Your task to perform on an android device: Open Yahoo.com Image 0: 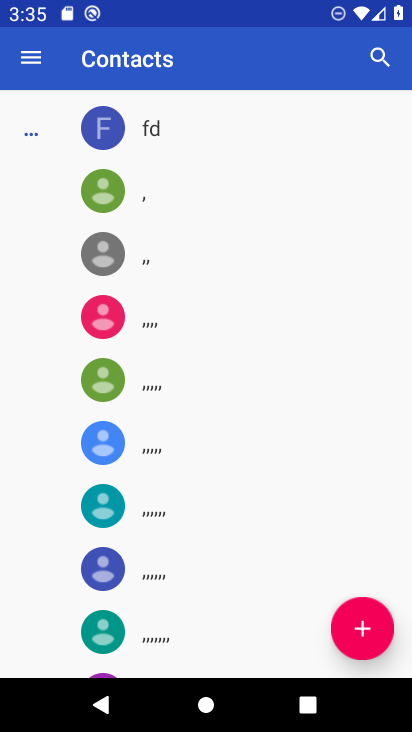
Step 0: press home button
Your task to perform on an android device: Open Yahoo.com Image 1: 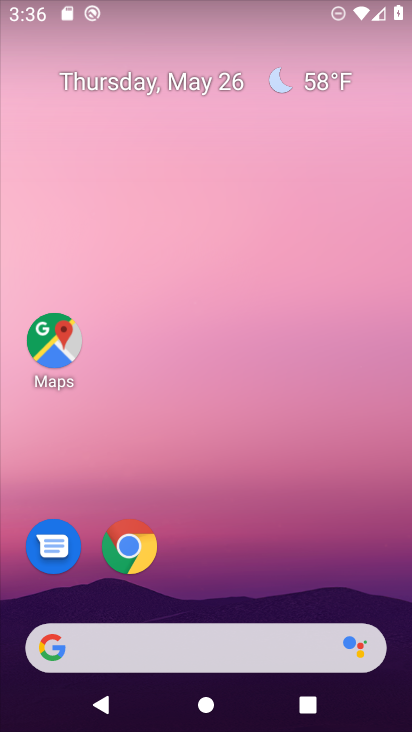
Step 1: click (127, 549)
Your task to perform on an android device: Open Yahoo.com Image 2: 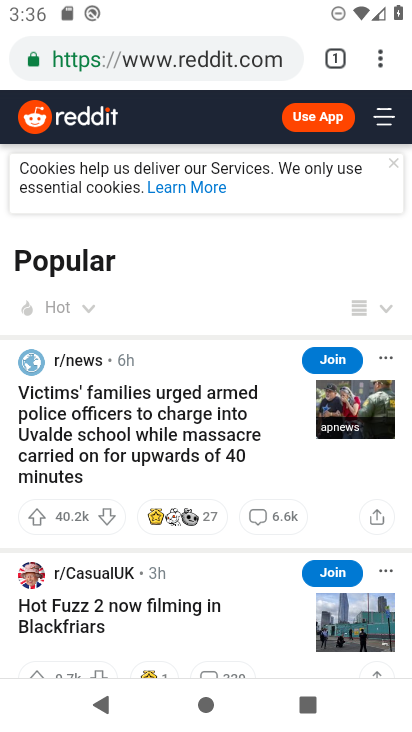
Step 2: click (329, 53)
Your task to perform on an android device: Open Yahoo.com Image 3: 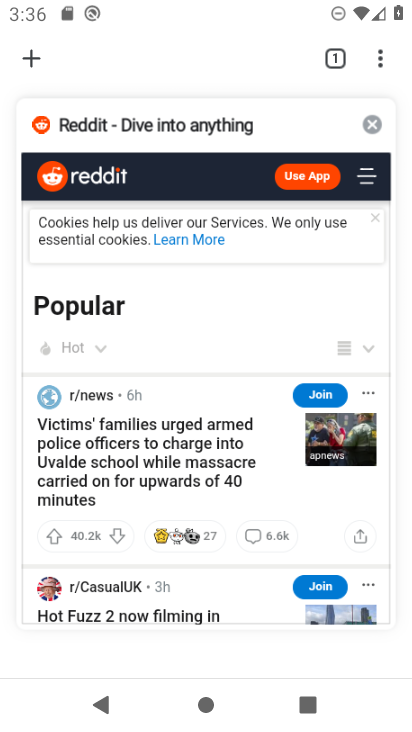
Step 3: click (42, 46)
Your task to perform on an android device: Open Yahoo.com Image 4: 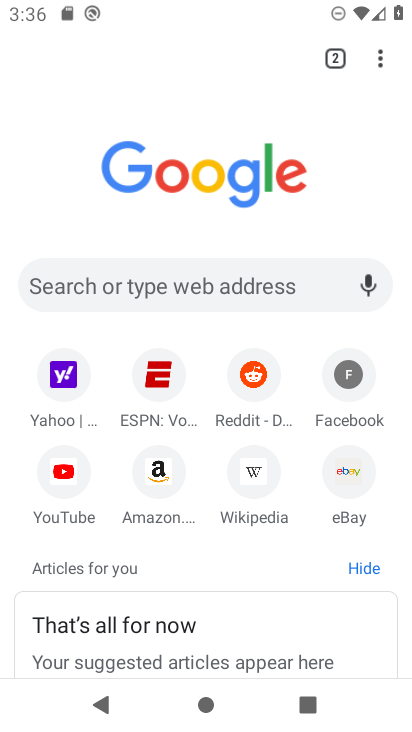
Step 4: click (55, 366)
Your task to perform on an android device: Open Yahoo.com Image 5: 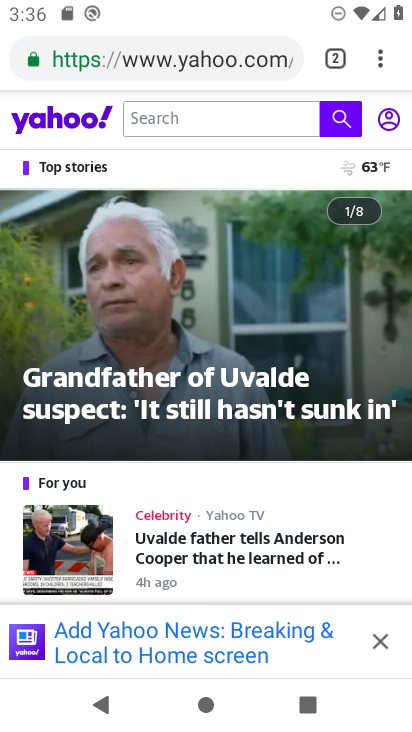
Step 5: task complete